Your task to perform on an android device: Open Google Image 0: 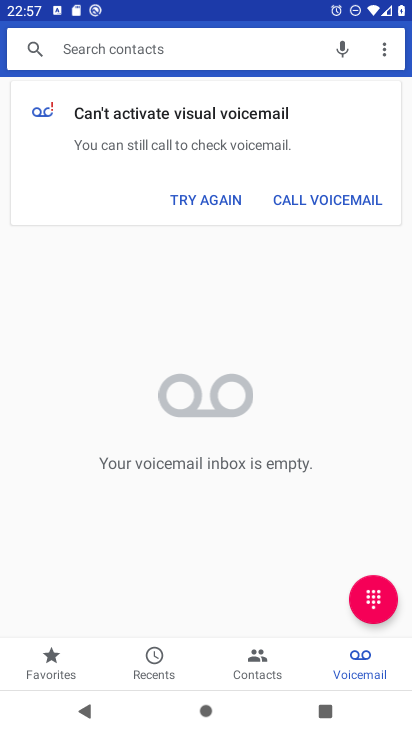
Step 0: press home button
Your task to perform on an android device: Open Google Image 1: 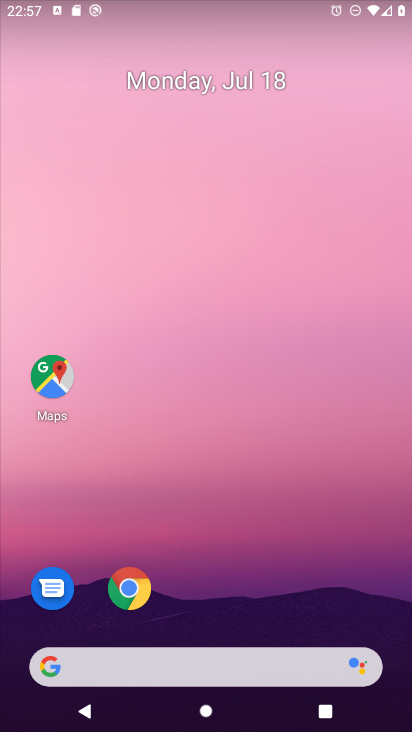
Step 1: click (126, 596)
Your task to perform on an android device: Open Google Image 2: 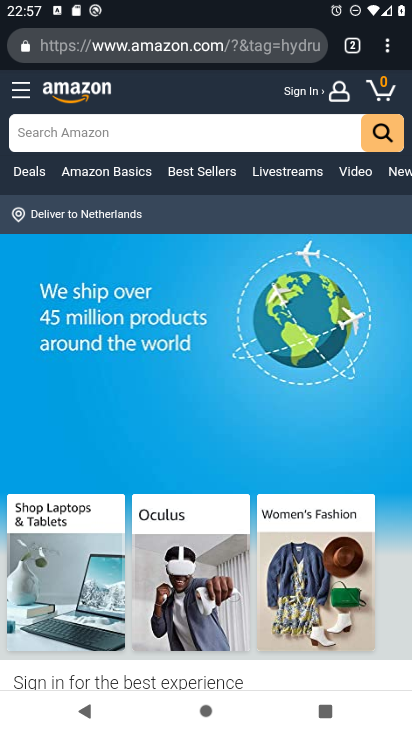
Step 2: task complete